Your task to perform on an android device: Go to location settings Image 0: 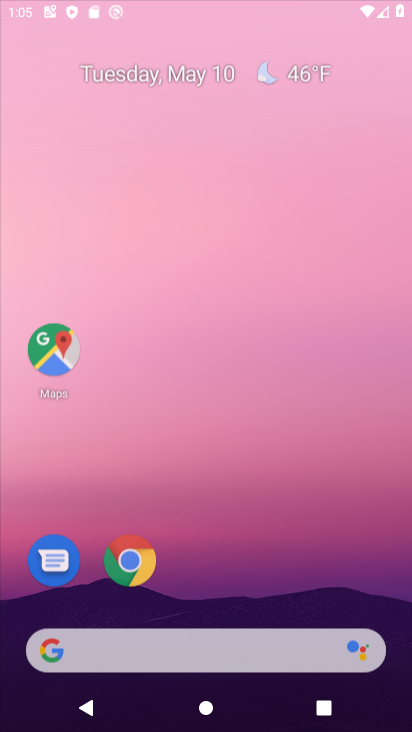
Step 0: click (263, 207)
Your task to perform on an android device: Go to location settings Image 1: 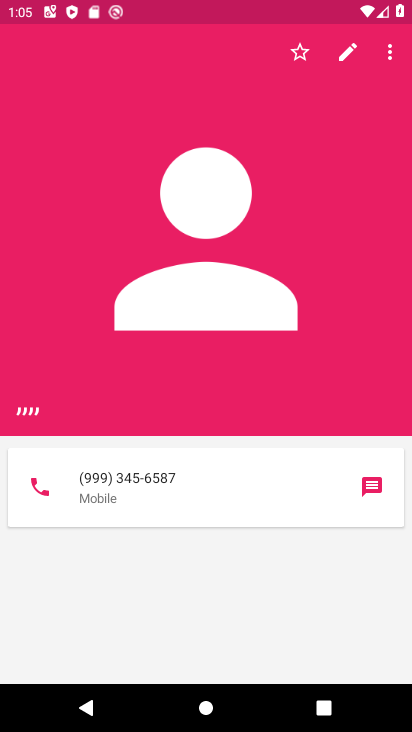
Step 1: press home button
Your task to perform on an android device: Go to location settings Image 2: 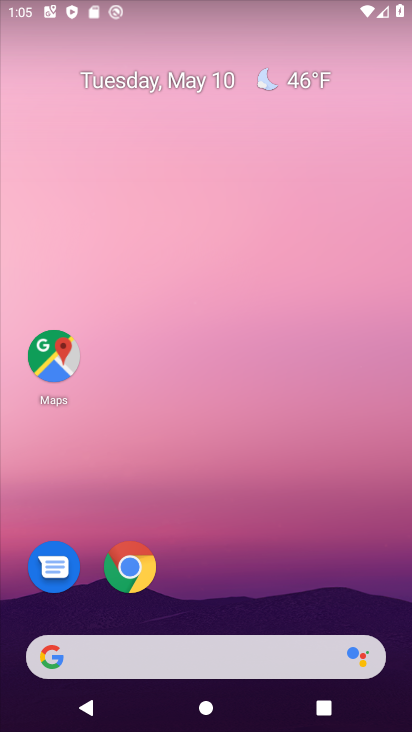
Step 2: drag from (318, 465) to (293, 119)
Your task to perform on an android device: Go to location settings Image 3: 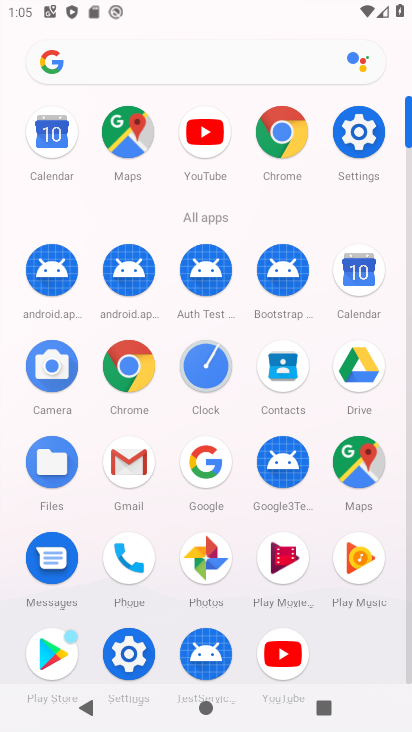
Step 3: click (370, 144)
Your task to perform on an android device: Go to location settings Image 4: 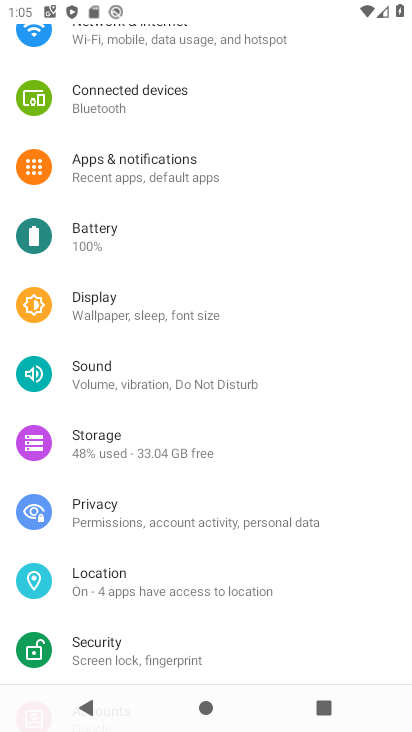
Step 4: click (158, 567)
Your task to perform on an android device: Go to location settings Image 5: 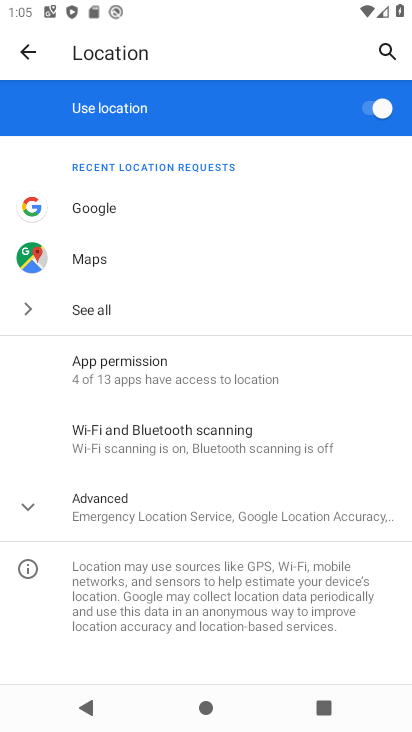
Step 5: task complete